Your task to perform on an android device: What's the weather? Image 0: 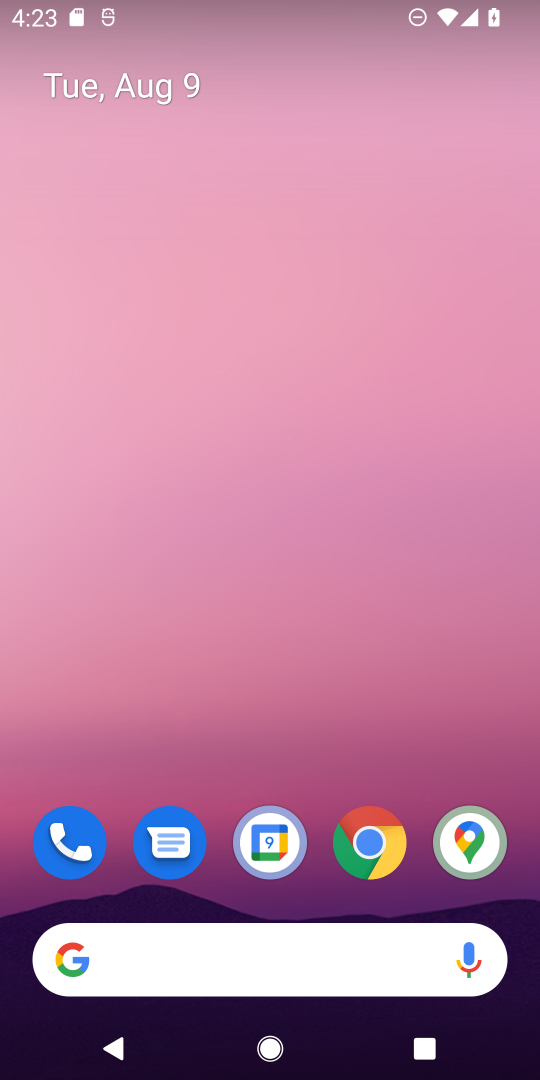
Step 0: drag from (339, 955) to (401, 98)
Your task to perform on an android device: What's the weather? Image 1: 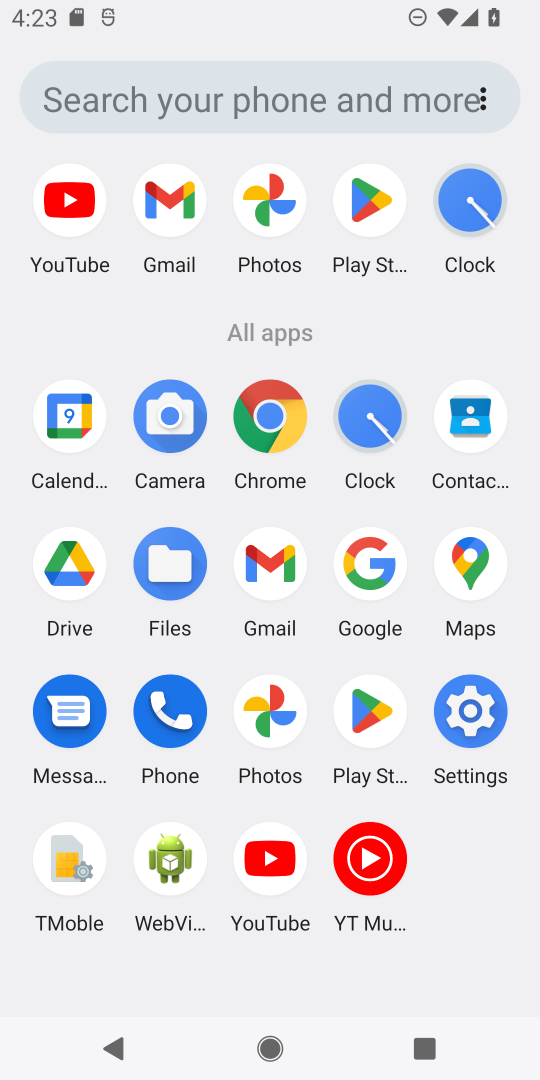
Step 1: click (380, 586)
Your task to perform on an android device: What's the weather? Image 2: 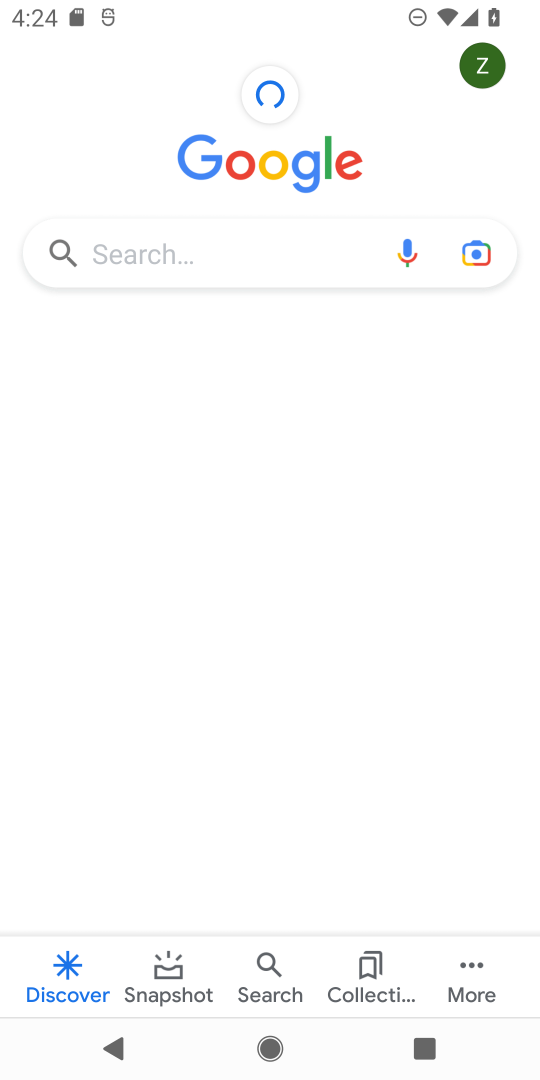
Step 2: click (218, 245)
Your task to perform on an android device: What's the weather? Image 3: 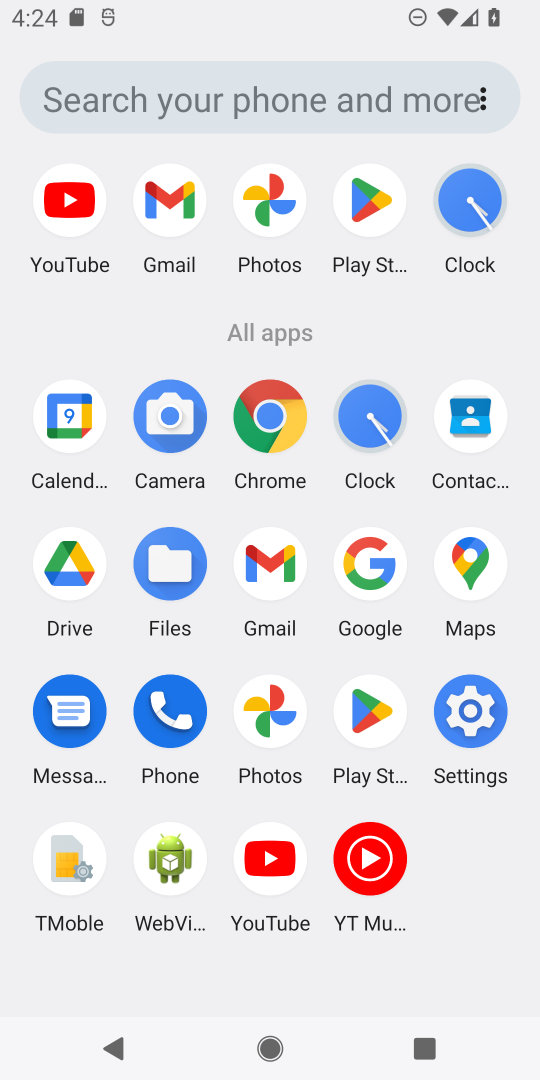
Step 3: click (355, 561)
Your task to perform on an android device: What's the weather? Image 4: 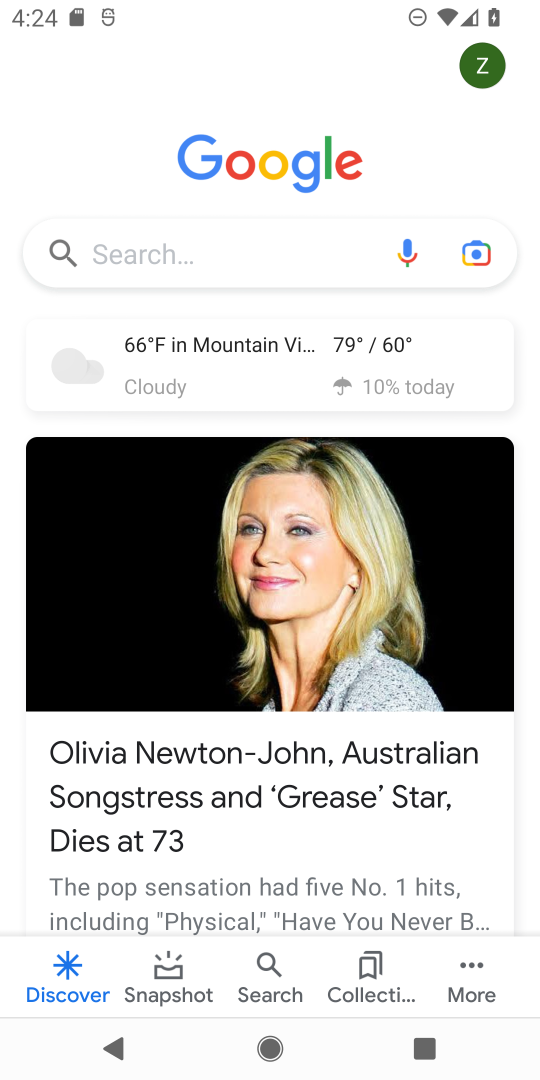
Step 4: click (225, 277)
Your task to perform on an android device: What's the weather? Image 5: 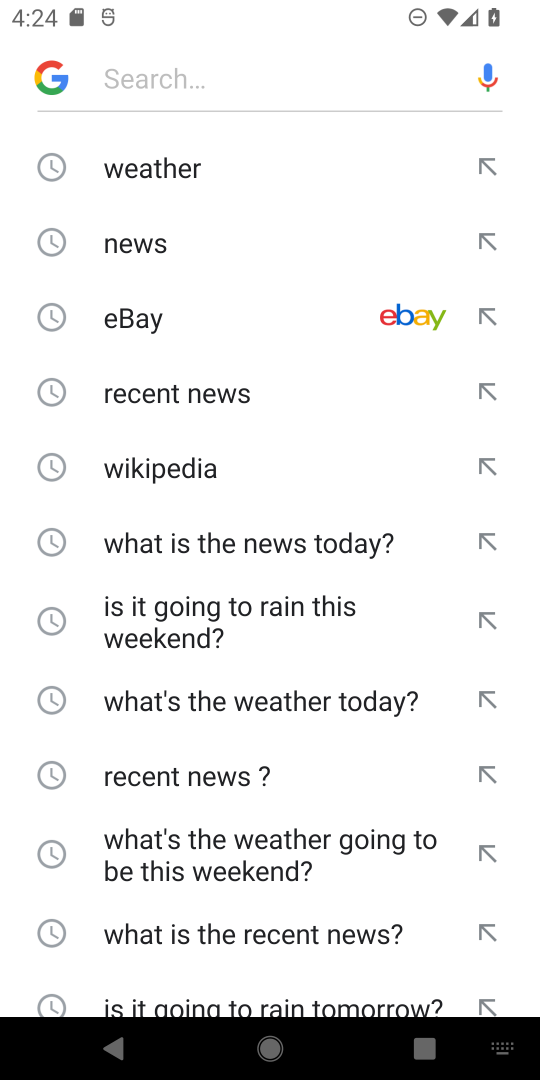
Step 5: click (181, 177)
Your task to perform on an android device: What's the weather? Image 6: 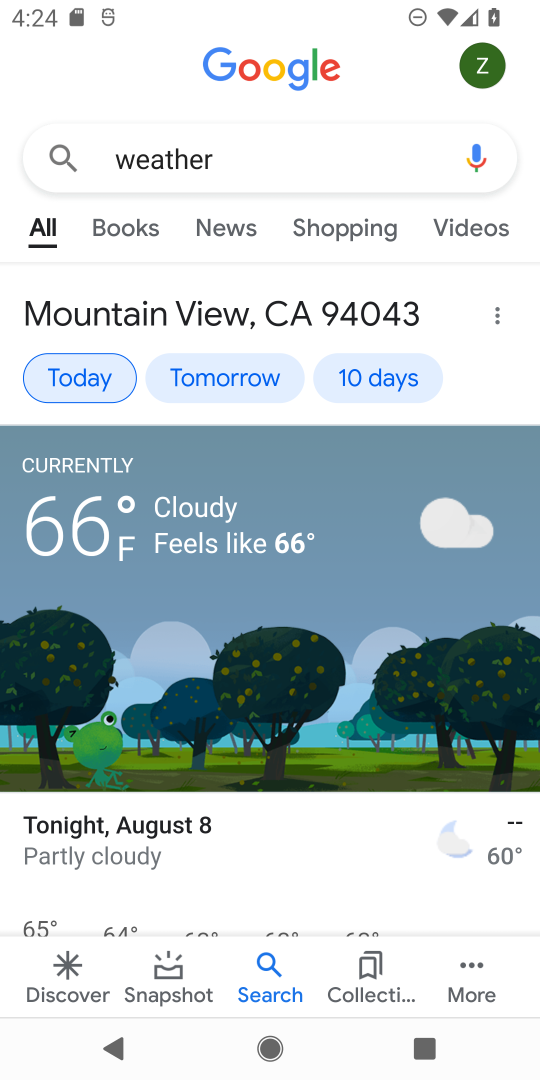
Step 6: task complete